Your task to perform on an android device: manage bookmarks in the chrome app Image 0: 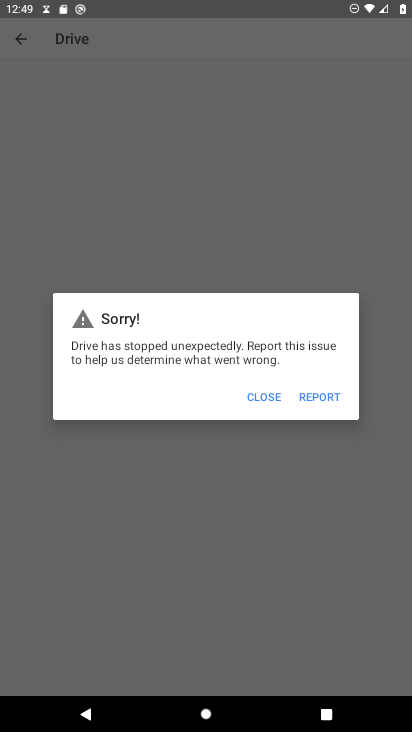
Step 0: press home button
Your task to perform on an android device: manage bookmarks in the chrome app Image 1: 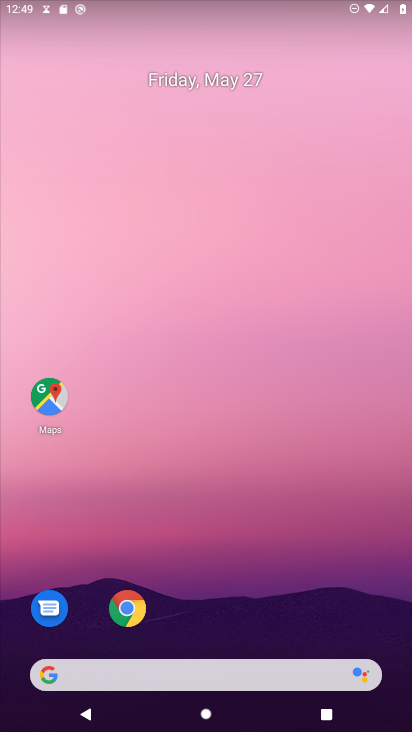
Step 1: click (127, 615)
Your task to perform on an android device: manage bookmarks in the chrome app Image 2: 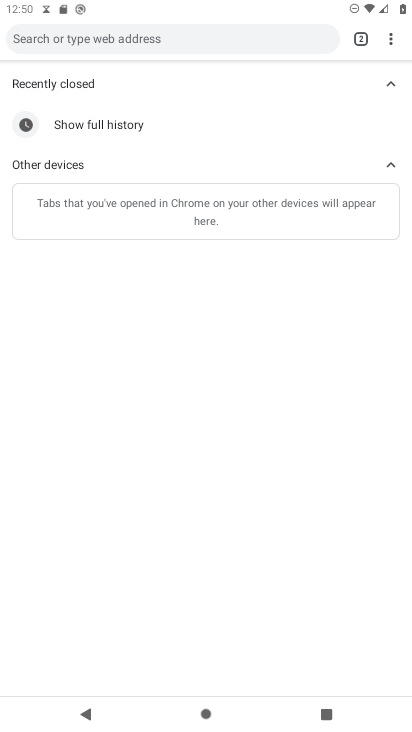
Step 2: task complete